Your task to perform on an android device: open a bookmark in the chrome app Image 0: 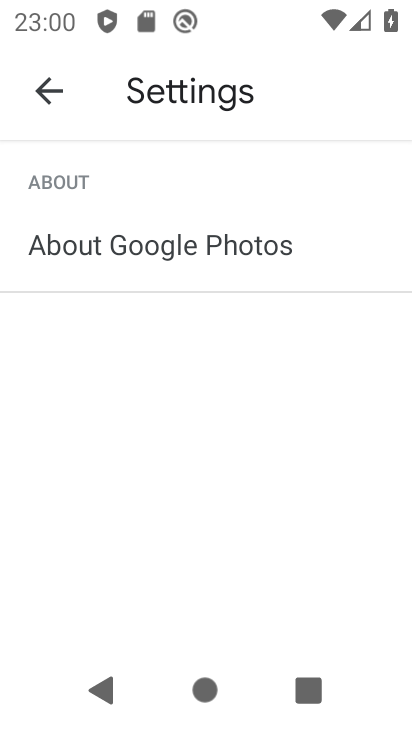
Step 0: press home button
Your task to perform on an android device: open a bookmark in the chrome app Image 1: 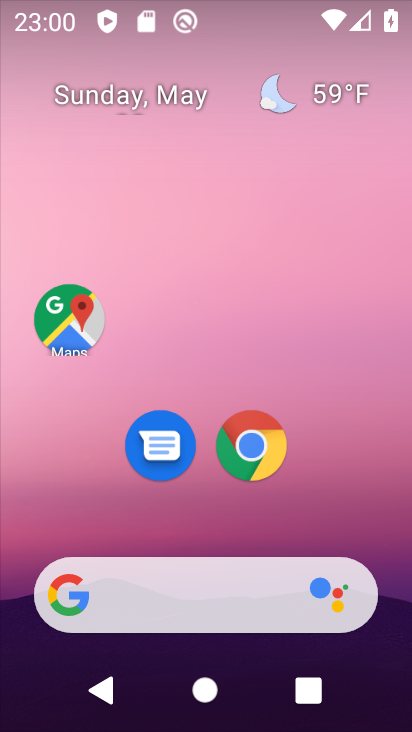
Step 1: click (246, 448)
Your task to perform on an android device: open a bookmark in the chrome app Image 2: 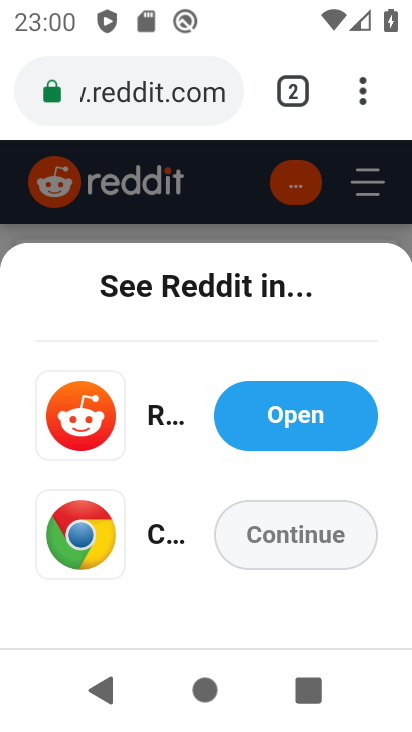
Step 2: task complete